Your task to perform on an android device: Check the weather Image 0: 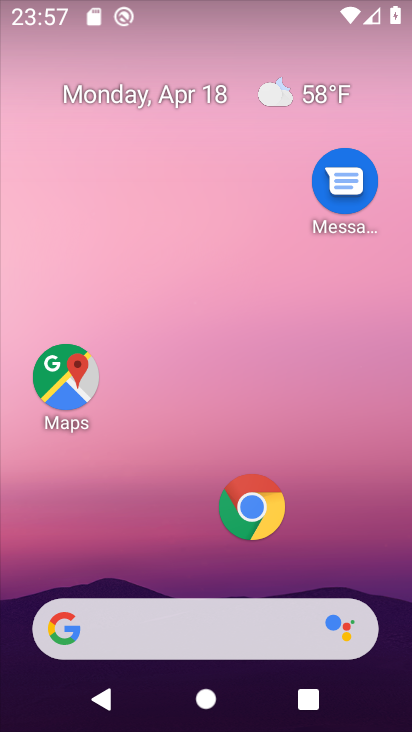
Step 0: drag from (154, 530) to (277, 9)
Your task to perform on an android device: Check the weather Image 1: 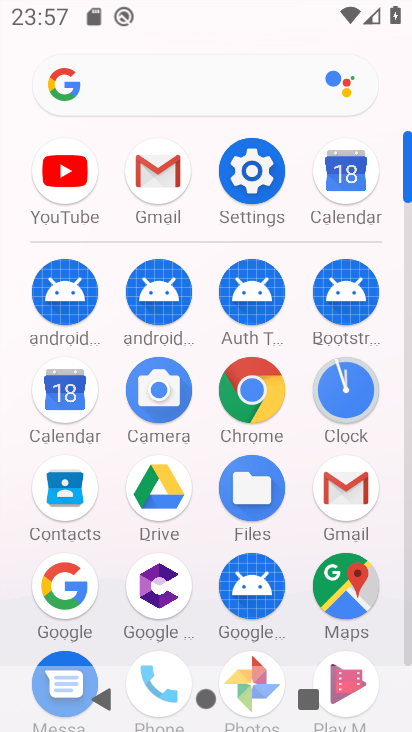
Step 1: press home button
Your task to perform on an android device: Check the weather Image 2: 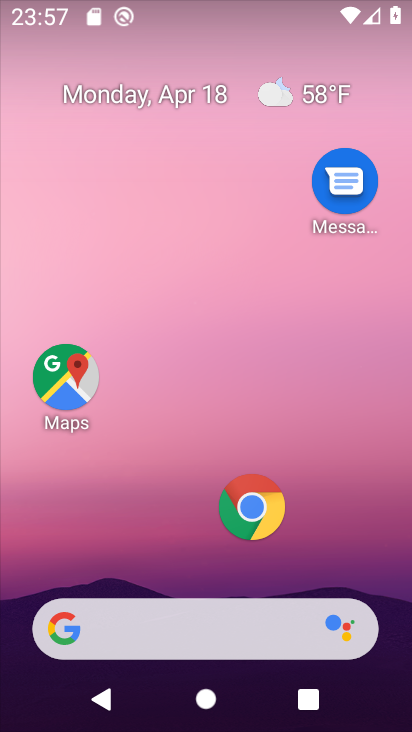
Step 2: click (307, 79)
Your task to perform on an android device: Check the weather Image 3: 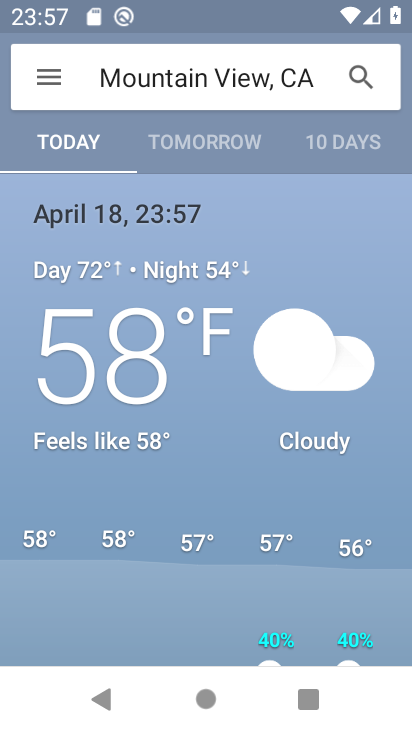
Step 3: task complete